Your task to perform on an android device: open a bookmark in the chrome app Image 0: 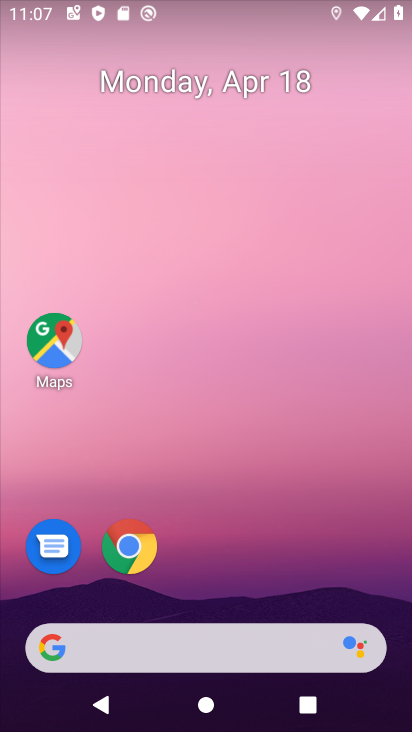
Step 0: click (145, 541)
Your task to perform on an android device: open a bookmark in the chrome app Image 1: 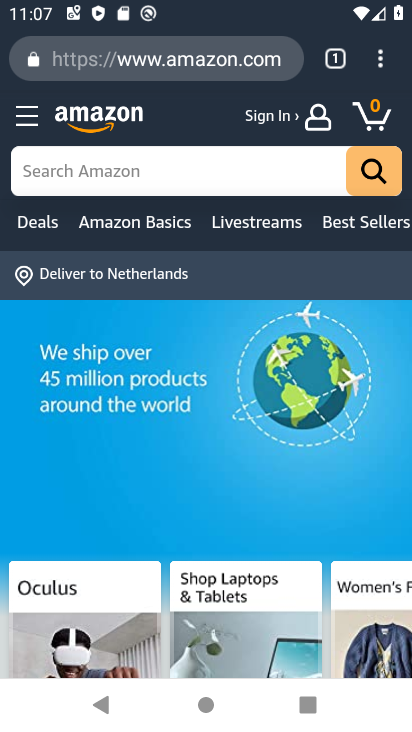
Step 1: click (375, 64)
Your task to perform on an android device: open a bookmark in the chrome app Image 2: 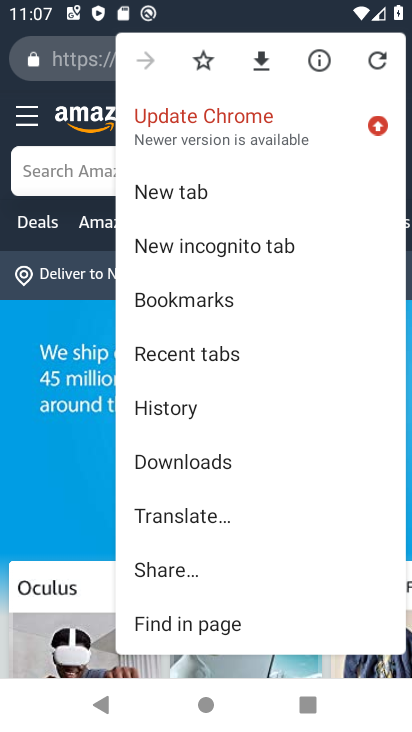
Step 2: click (218, 292)
Your task to perform on an android device: open a bookmark in the chrome app Image 3: 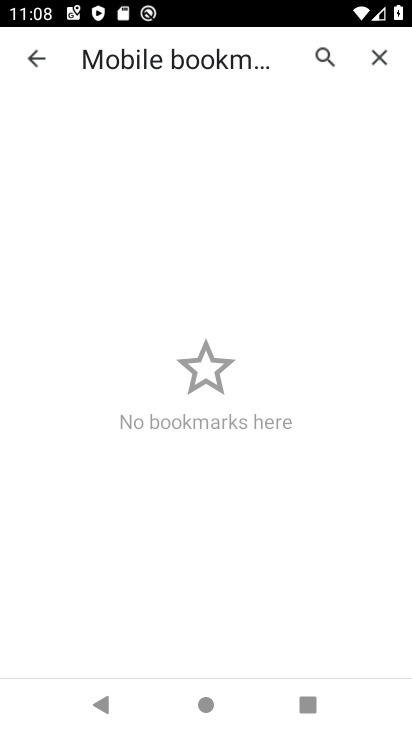
Step 3: task complete